Your task to perform on an android device: Open Chrome and go to settings Image 0: 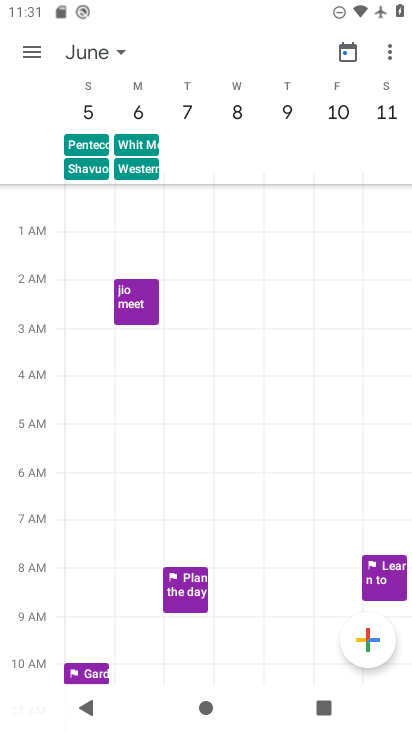
Step 0: press home button
Your task to perform on an android device: Open Chrome and go to settings Image 1: 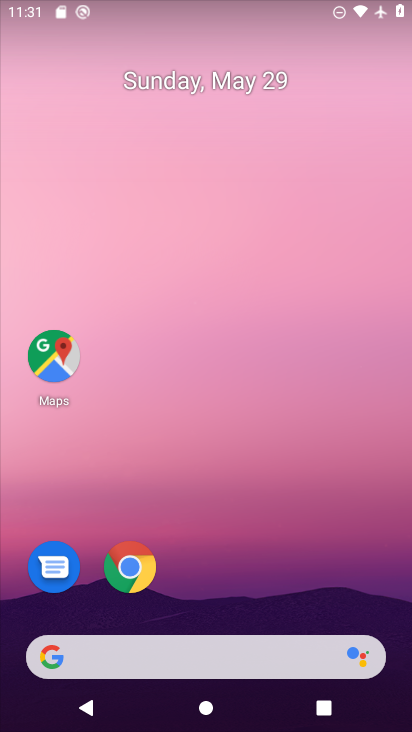
Step 1: click (134, 567)
Your task to perform on an android device: Open Chrome and go to settings Image 2: 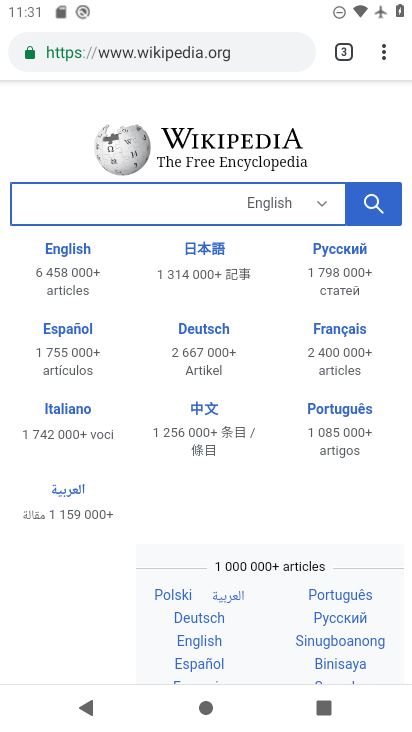
Step 2: click (384, 54)
Your task to perform on an android device: Open Chrome and go to settings Image 3: 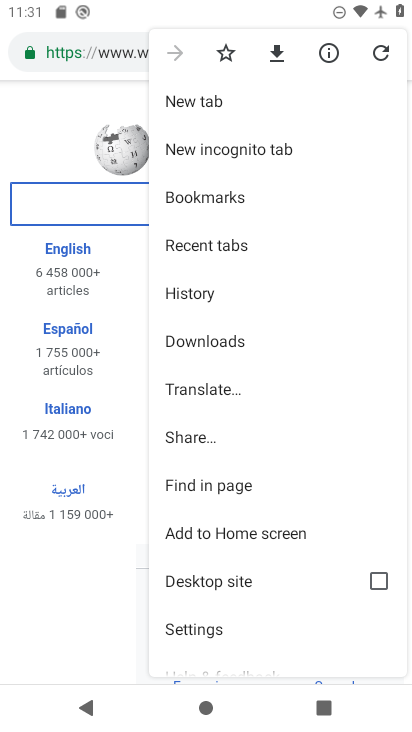
Step 3: drag from (262, 593) to (308, 265)
Your task to perform on an android device: Open Chrome and go to settings Image 4: 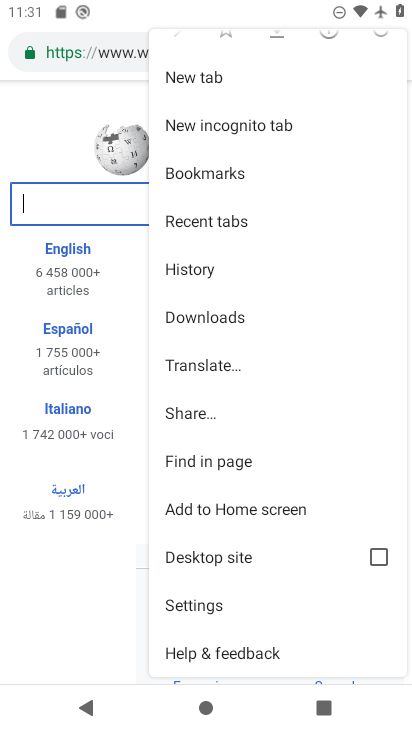
Step 4: click (214, 600)
Your task to perform on an android device: Open Chrome and go to settings Image 5: 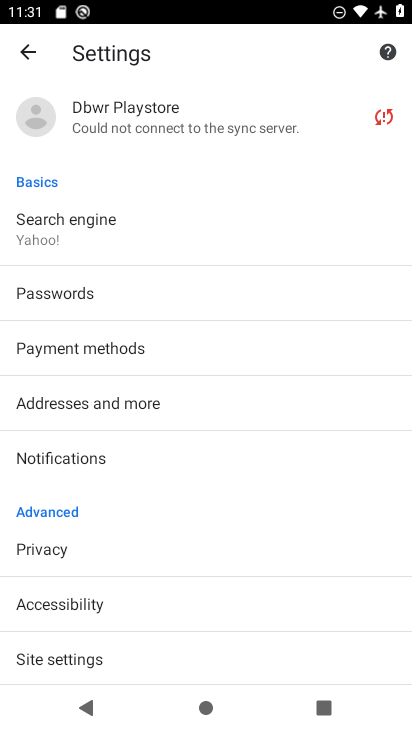
Step 5: task complete